Your task to perform on an android device: toggle pop-ups in chrome Image 0: 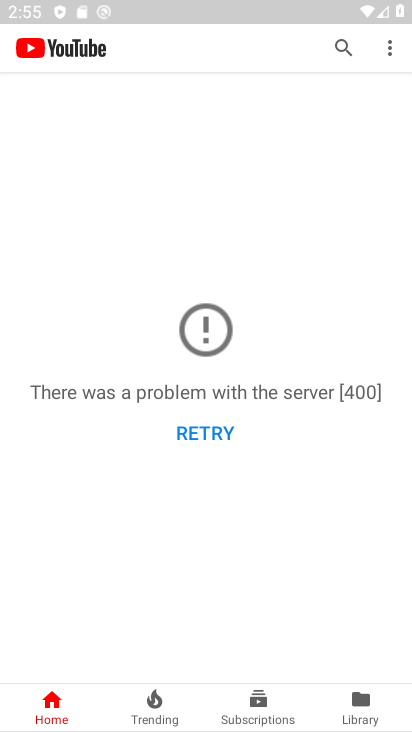
Step 0: press home button
Your task to perform on an android device: toggle pop-ups in chrome Image 1: 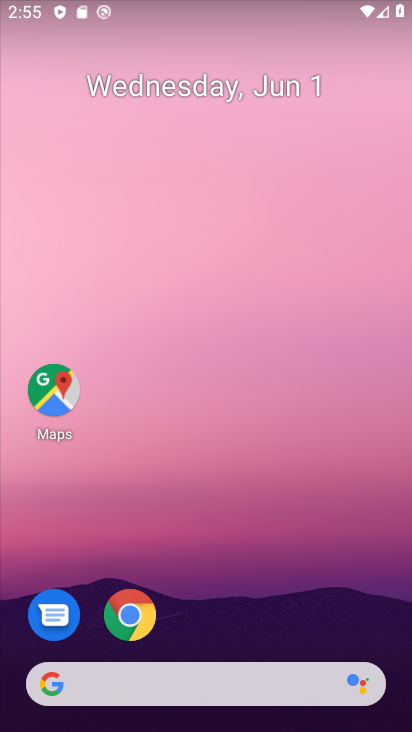
Step 1: drag from (298, 638) to (346, 6)
Your task to perform on an android device: toggle pop-ups in chrome Image 2: 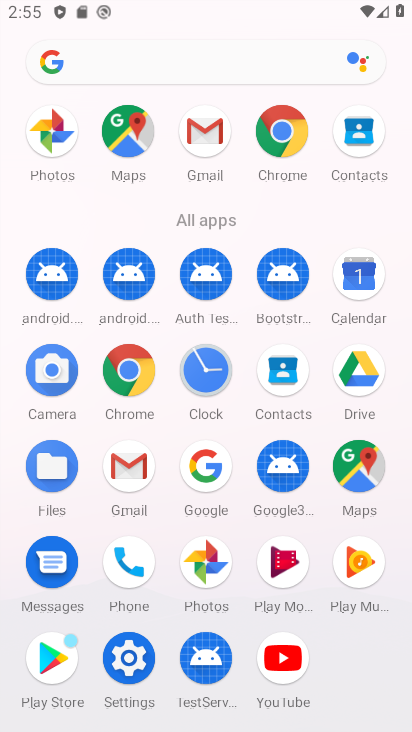
Step 2: click (139, 366)
Your task to perform on an android device: toggle pop-ups in chrome Image 3: 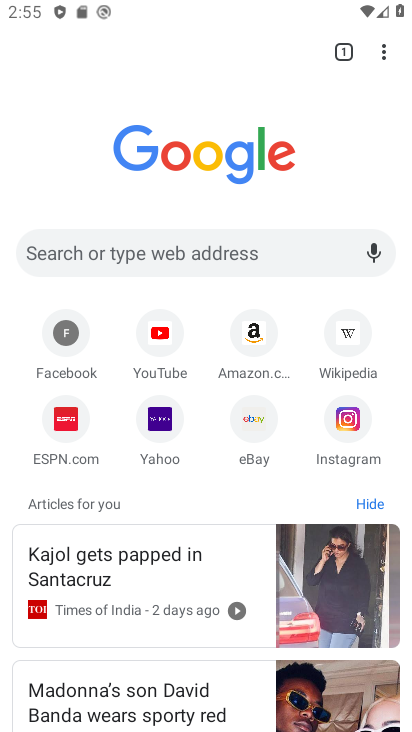
Step 3: click (379, 46)
Your task to perform on an android device: toggle pop-ups in chrome Image 4: 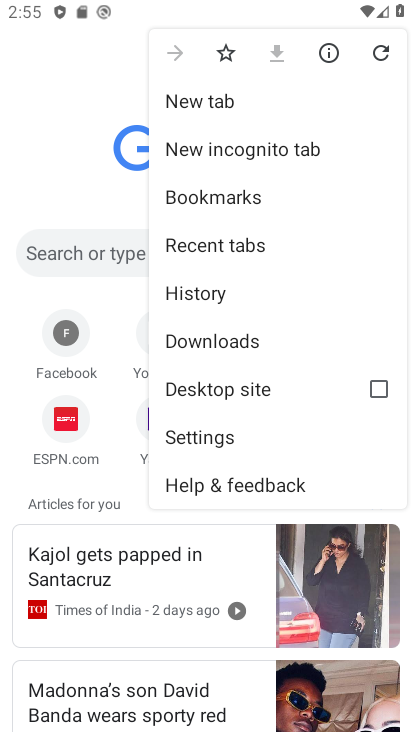
Step 4: click (214, 427)
Your task to perform on an android device: toggle pop-ups in chrome Image 5: 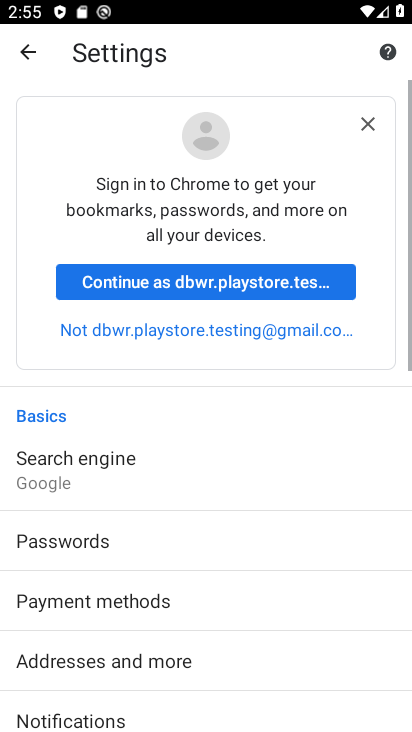
Step 5: drag from (265, 641) to (293, 161)
Your task to perform on an android device: toggle pop-ups in chrome Image 6: 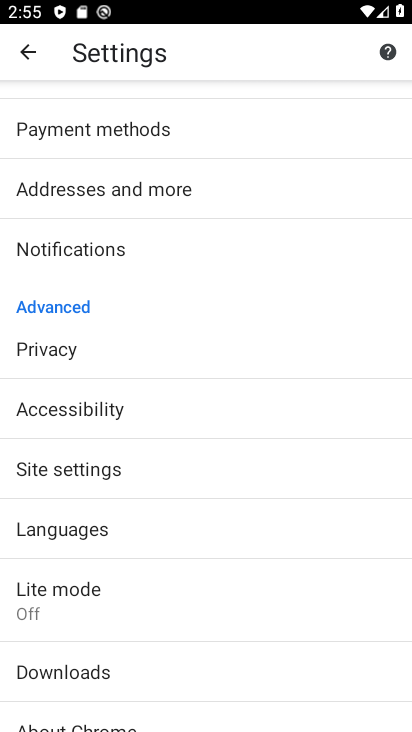
Step 6: click (142, 471)
Your task to perform on an android device: toggle pop-ups in chrome Image 7: 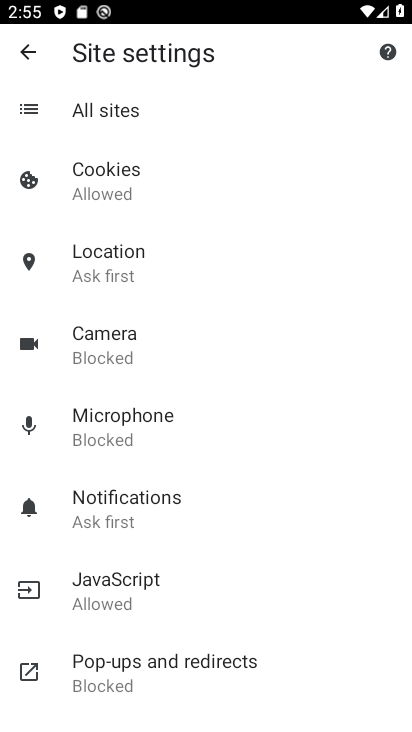
Step 7: click (256, 654)
Your task to perform on an android device: toggle pop-ups in chrome Image 8: 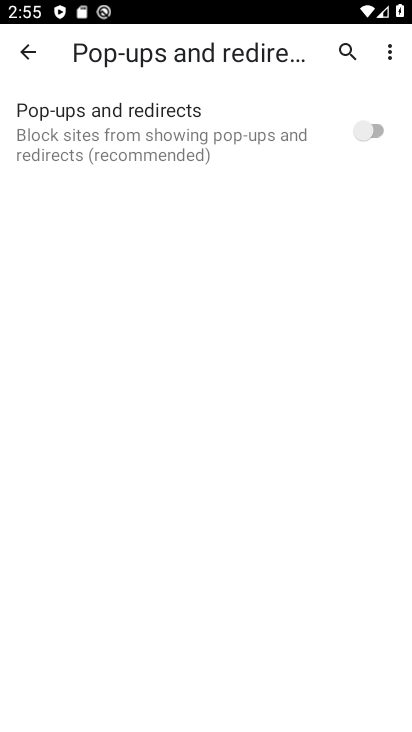
Step 8: click (374, 126)
Your task to perform on an android device: toggle pop-ups in chrome Image 9: 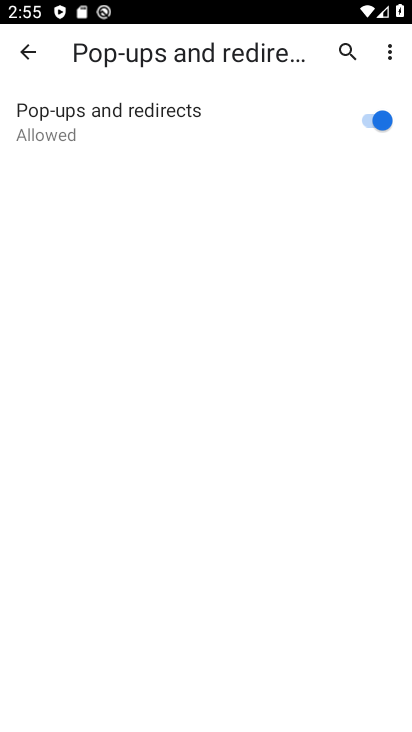
Step 9: task complete